Your task to perform on an android device: What's the weather today? Image 0: 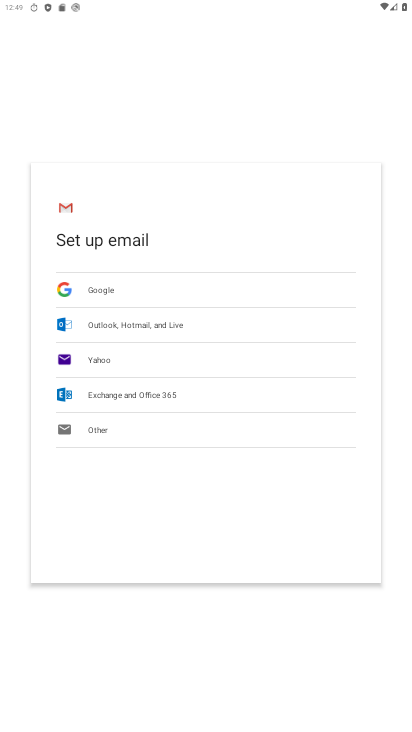
Step 0: press home button
Your task to perform on an android device: What's the weather today? Image 1: 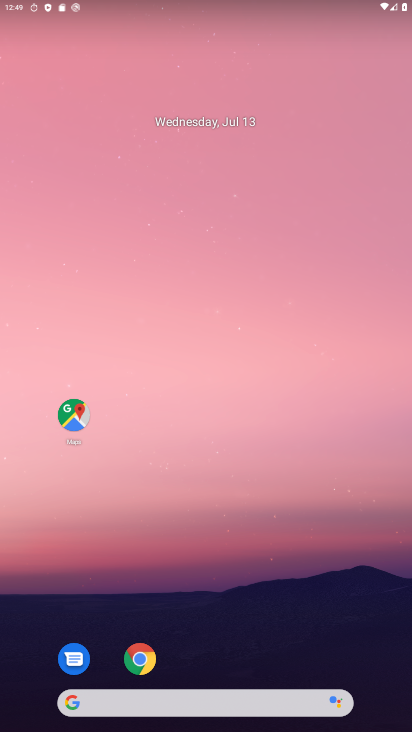
Step 1: drag from (231, 690) to (297, 166)
Your task to perform on an android device: What's the weather today? Image 2: 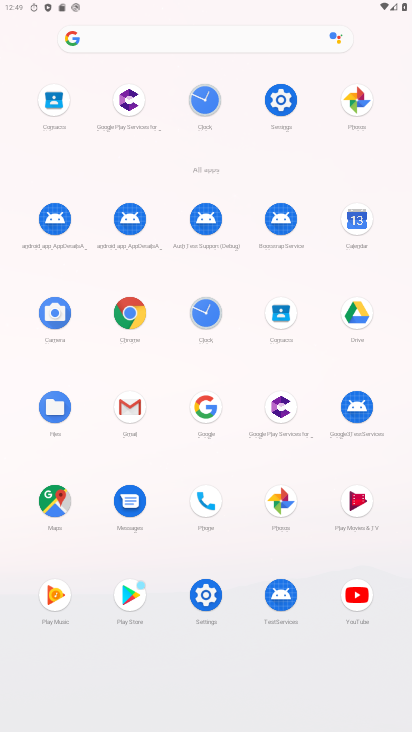
Step 2: click (137, 320)
Your task to perform on an android device: What's the weather today? Image 3: 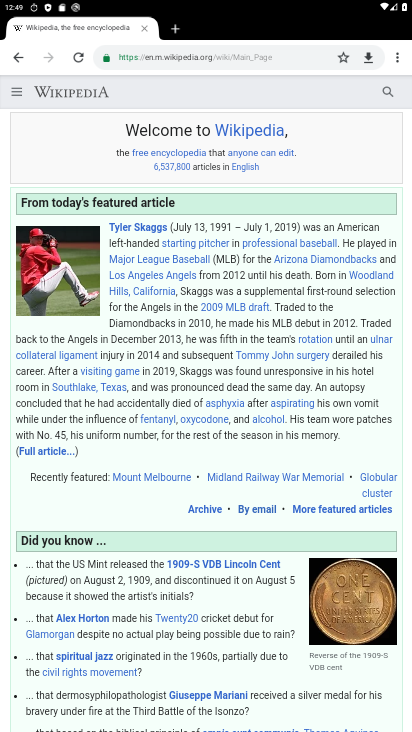
Step 3: click (203, 57)
Your task to perform on an android device: What's the weather today? Image 4: 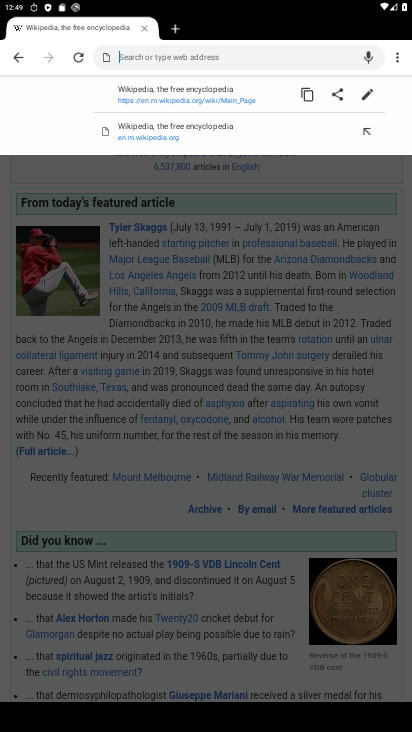
Step 4: type "weather today"
Your task to perform on an android device: What's the weather today? Image 5: 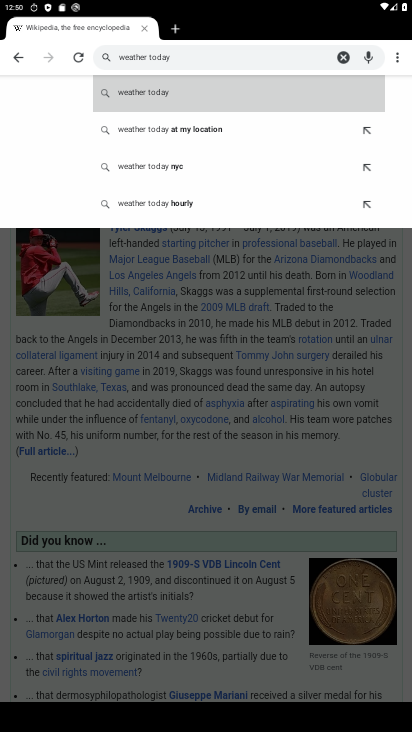
Step 5: click (178, 96)
Your task to perform on an android device: What's the weather today? Image 6: 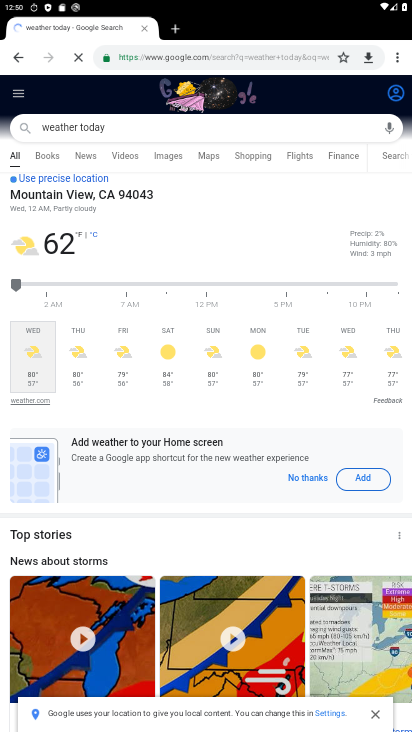
Step 6: task complete